Your task to perform on an android device: toggle translation in the chrome app Image 0: 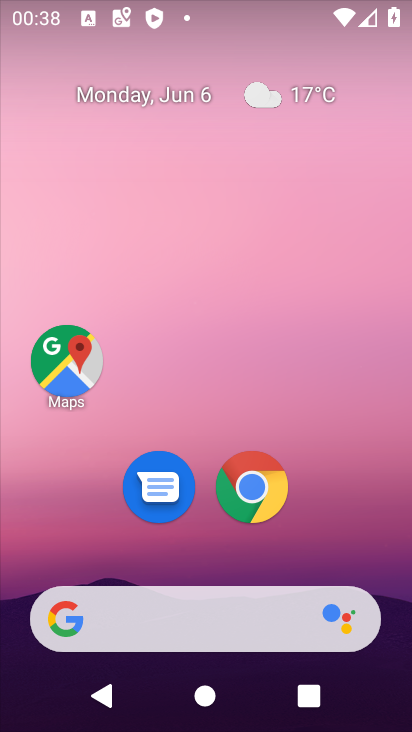
Step 0: click (255, 484)
Your task to perform on an android device: toggle translation in the chrome app Image 1: 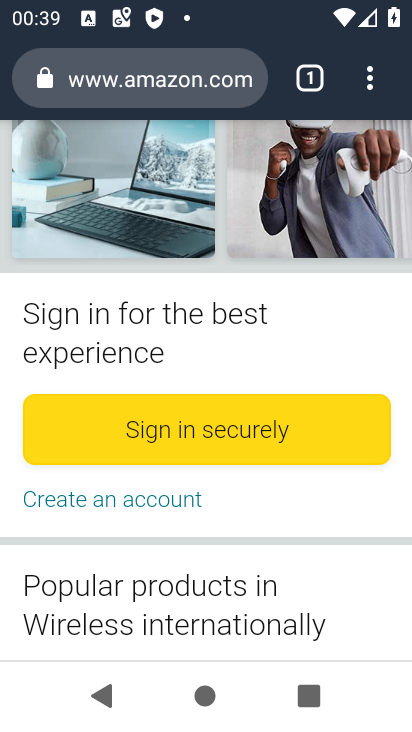
Step 1: click (368, 86)
Your task to perform on an android device: toggle translation in the chrome app Image 2: 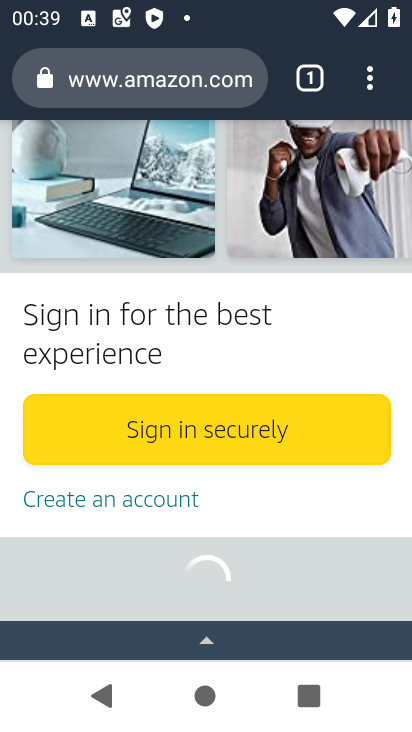
Step 2: click (370, 83)
Your task to perform on an android device: toggle translation in the chrome app Image 3: 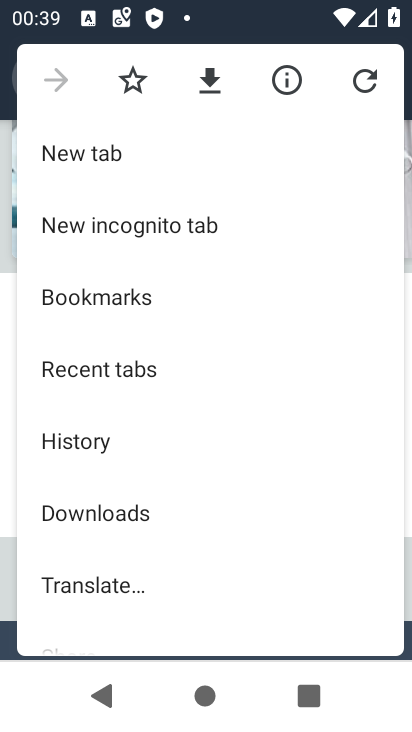
Step 3: drag from (189, 582) to (230, 203)
Your task to perform on an android device: toggle translation in the chrome app Image 4: 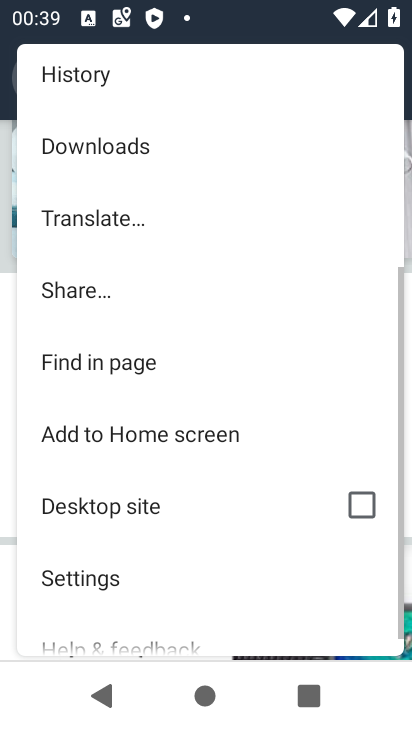
Step 4: click (76, 574)
Your task to perform on an android device: toggle translation in the chrome app Image 5: 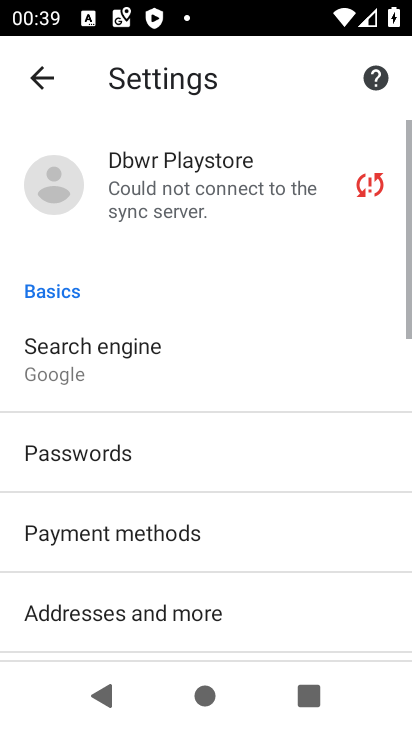
Step 5: drag from (247, 601) to (174, 165)
Your task to perform on an android device: toggle translation in the chrome app Image 6: 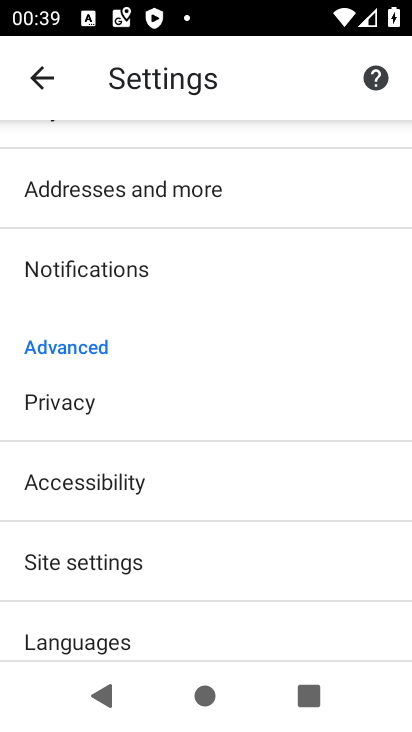
Step 6: click (102, 631)
Your task to perform on an android device: toggle translation in the chrome app Image 7: 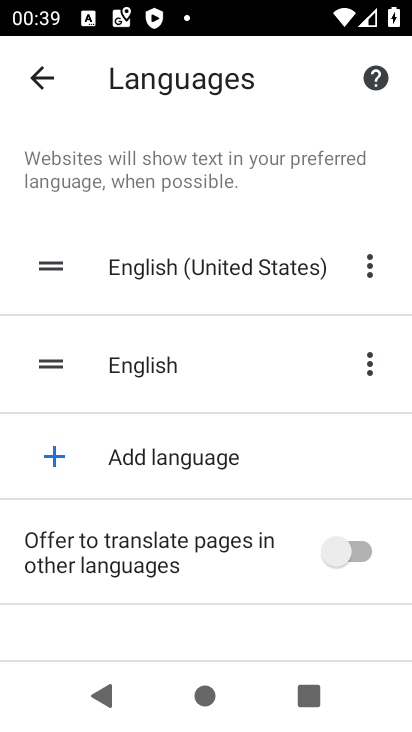
Step 7: click (362, 555)
Your task to perform on an android device: toggle translation in the chrome app Image 8: 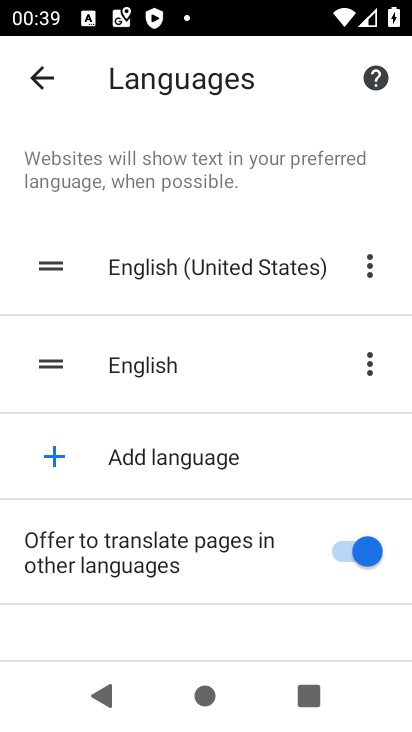
Step 8: task complete